Your task to perform on an android device: change the clock display to digital Image 0: 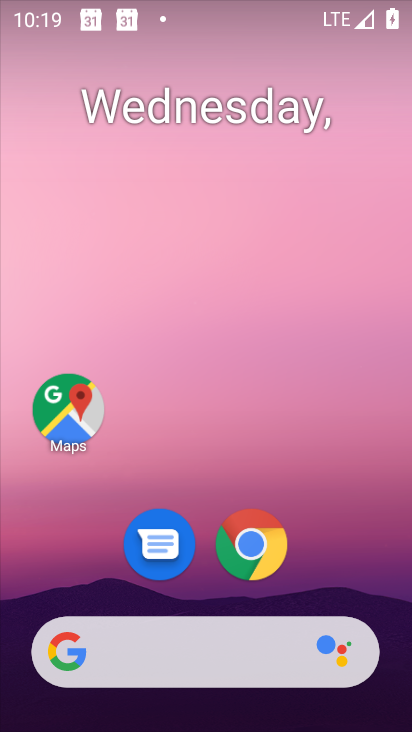
Step 0: drag from (330, 548) to (262, 25)
Your task to perform on an android device: change the clock display to digital Image 1: 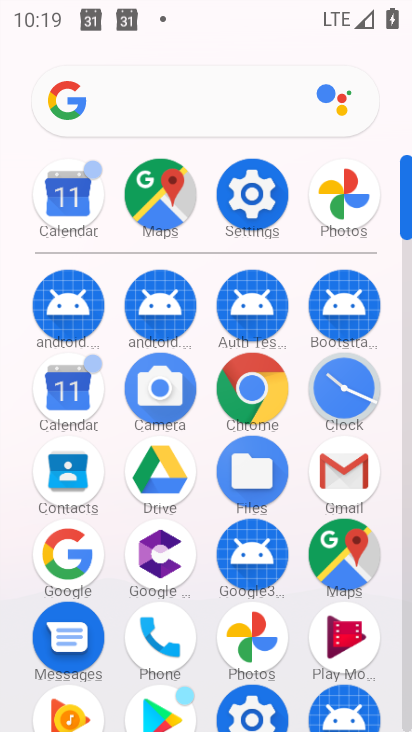
Step 1: click (348, 374)
Your task to perform on an android device: change the clock display to digital Image 2: 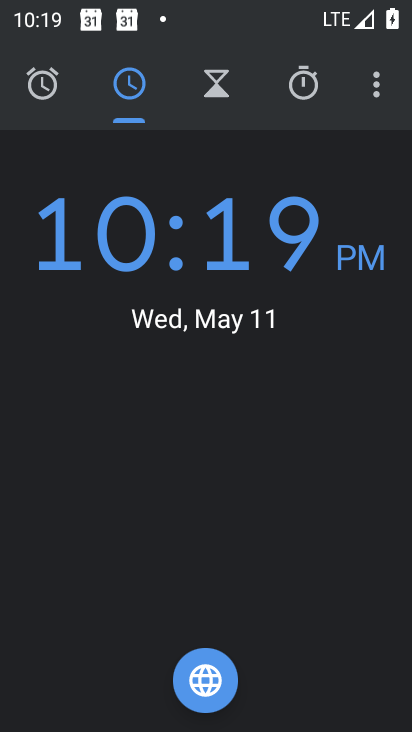
Step 2: click (382, 99)
Your task to perform on an android device: change the clock display to digital Image 3: 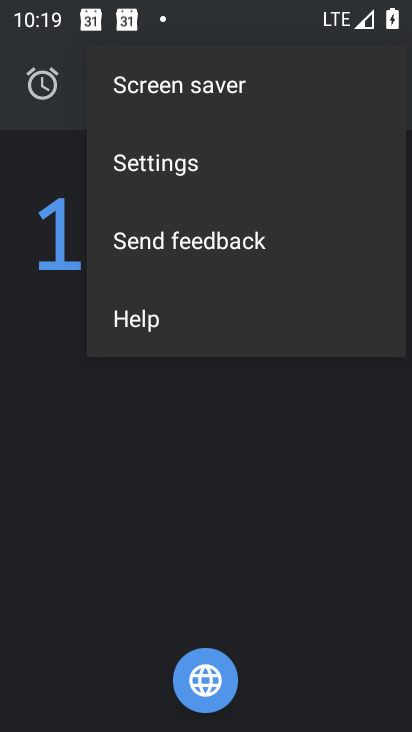
Step 3: click (302, 159)
Your task to perform on an android device: change the clock display to digital Image 4: 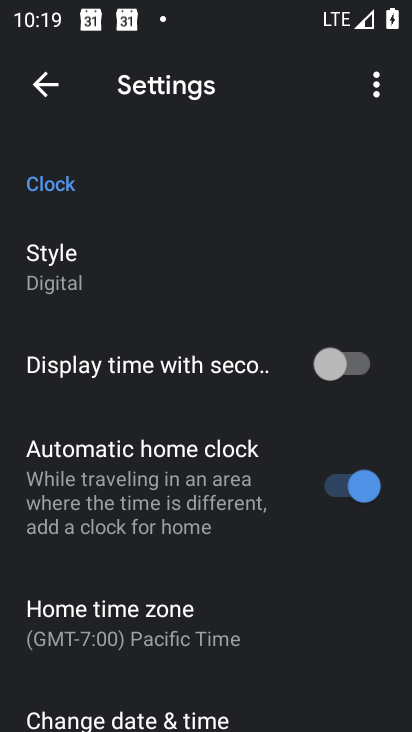
Step 4: click (81, 263)
Your task to perform on an android device: change the clock display to digital Image 5: 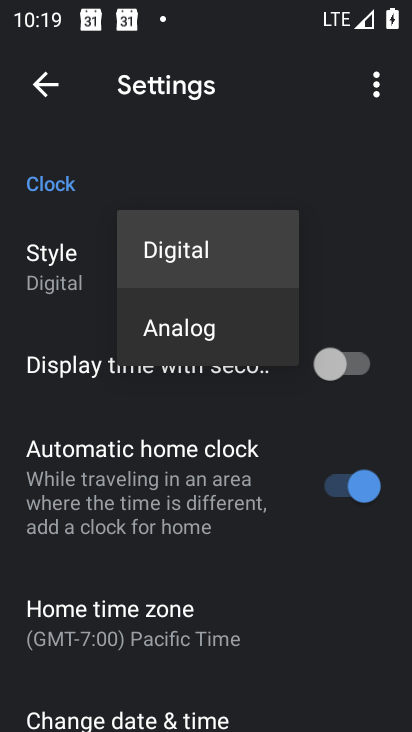
Step 5: click (198, 258)
Your task to perform on an android device: change the clock display to digital Image 6: 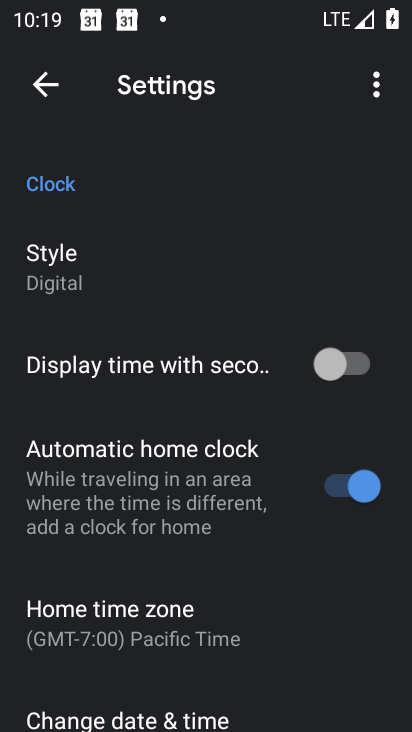
Step 6: task complete